Your task to perform on an android device: open app "YouTube Kids" Image 0: 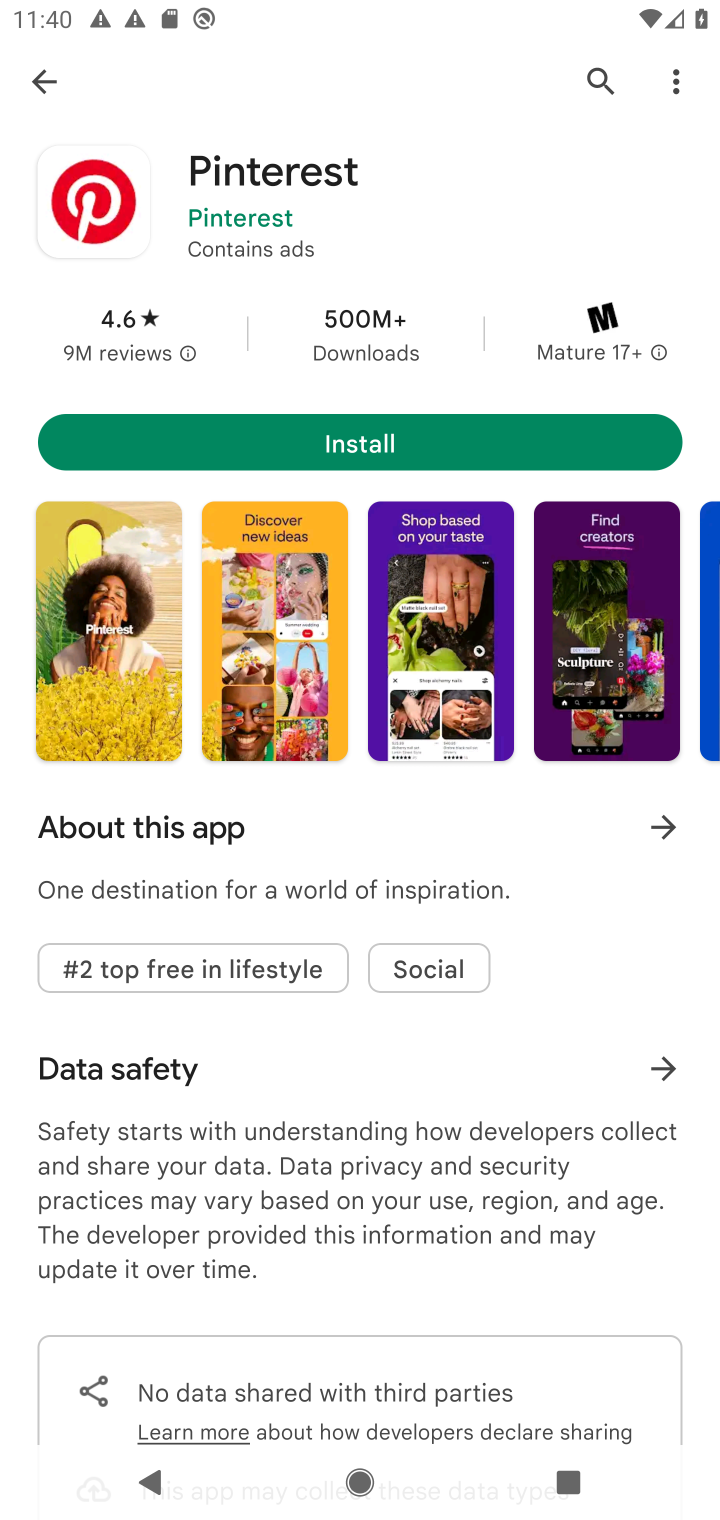
Step 0: task impossible